Your task to perform on an android device: set an alarm Image 0: 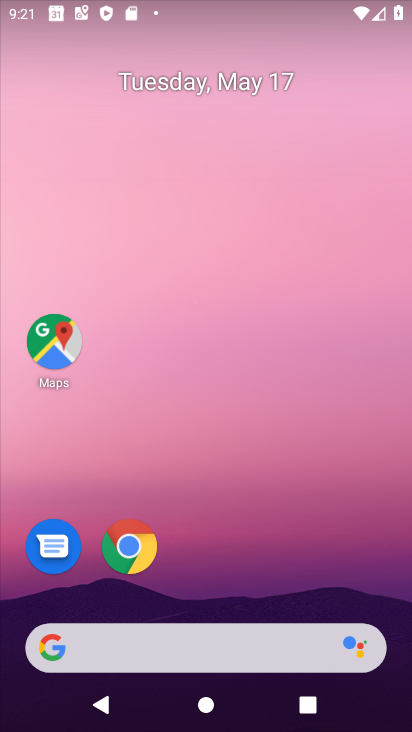
Step 0: drag from (286, 618) to (246, 87)
Your task to perform on an android device: set an alarm Image 1: 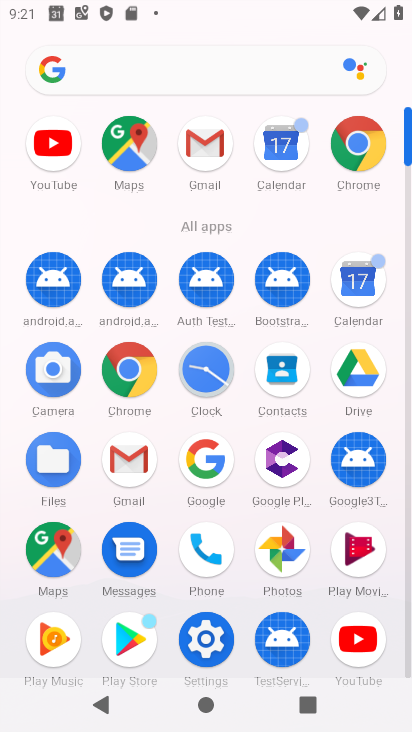
Step 1: click (201, 368)
Your task to perform on an android device: set an alarm Image 2: 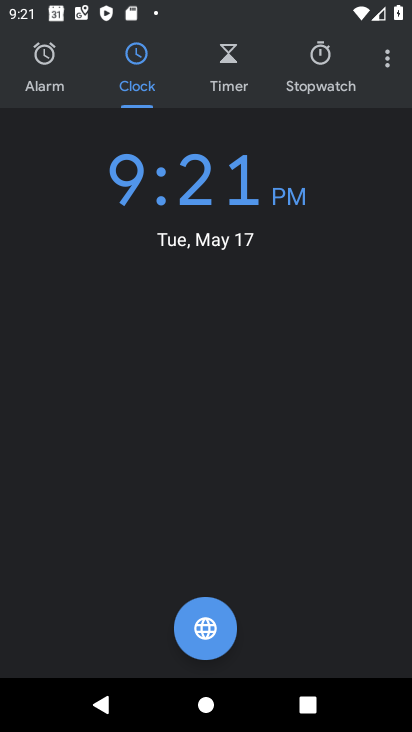
Step 2: click (24, 71)
Your task to perform on an android device: set an alarm Image 3: 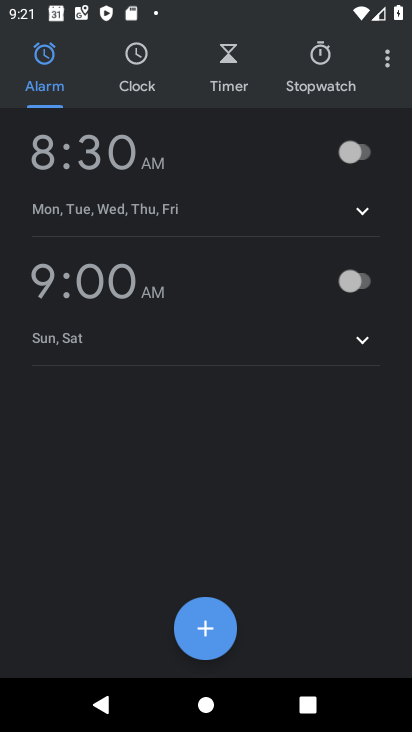
Step 3: click (211, 626)
Your task to perform on an android device: set an alarm Image 4: 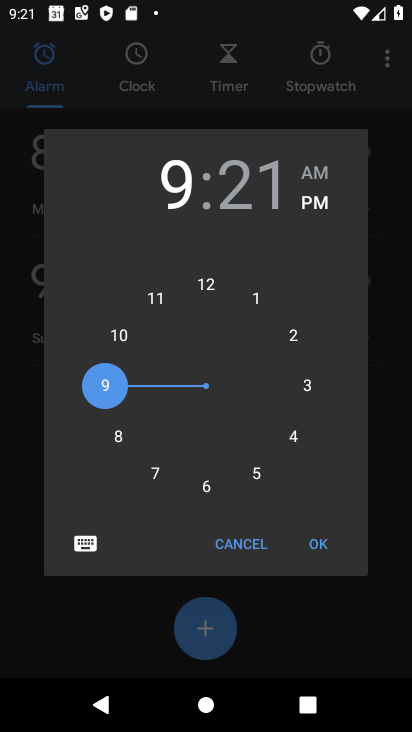
Step 4: click (310, 539)
Your task to perform on an android device: set an alarm Image 5: 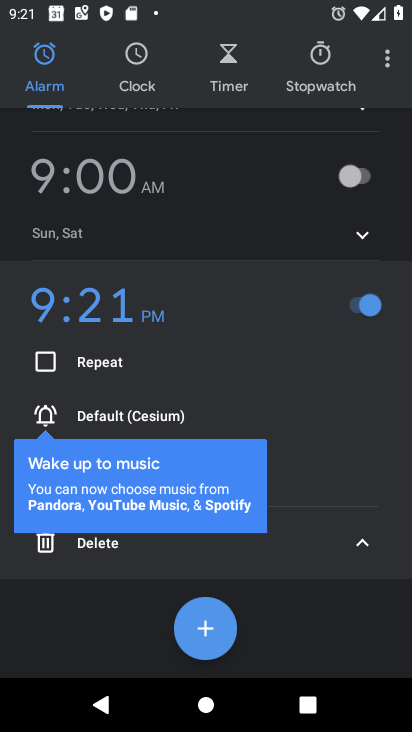
Step 5: click (364, 555)
Your task to perform on an android device: set an alarm Image 6: 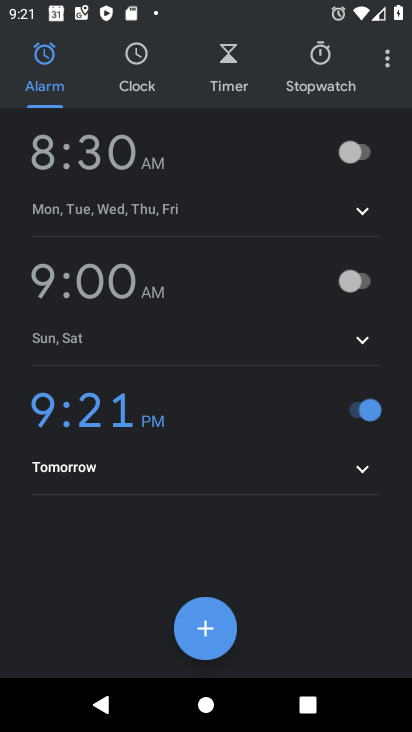
Step 6: task complete